Your task to perform on an android device: find snoozed emails in the gmail app Image 0: 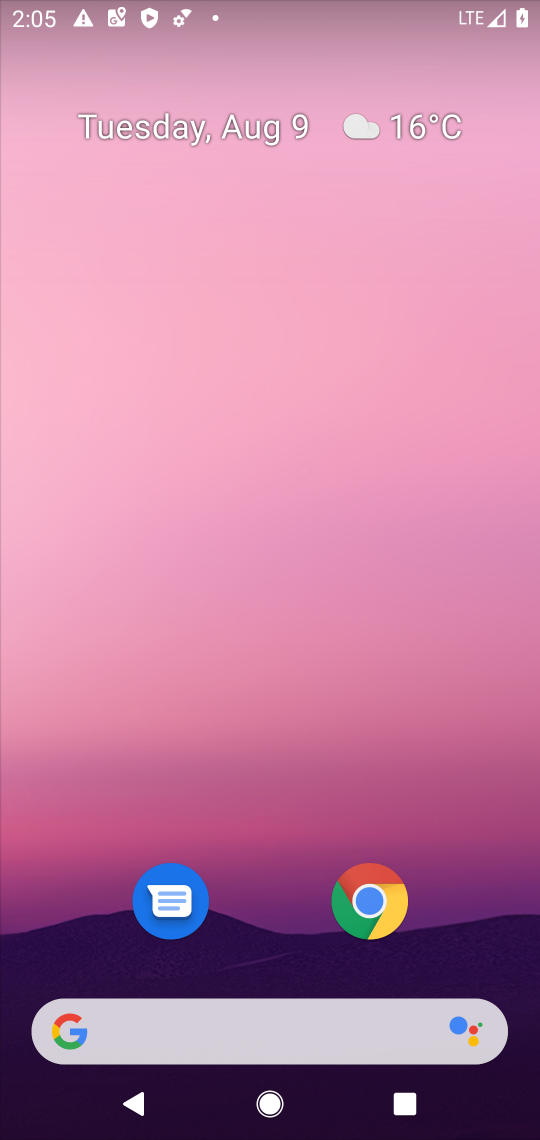
Step 0: drag from (513, 950) to (462, 112)
Your task to perform on an android device: find snoozed emails in the gmail app Image 1: 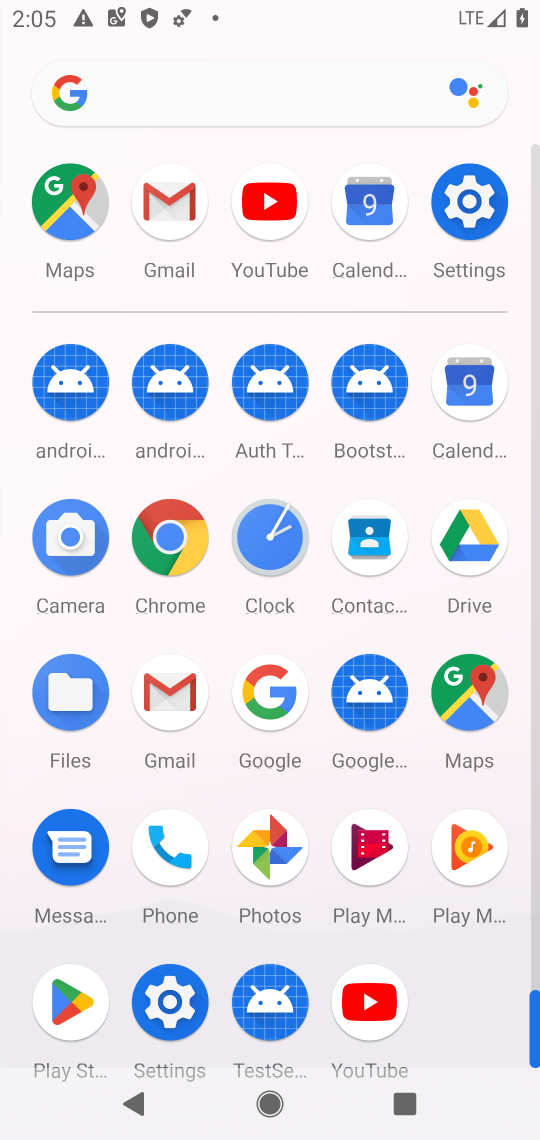
Step 1: click (169, 688)
Your task to perform on an android device: find snoozed emails in the gmail app Image 2: 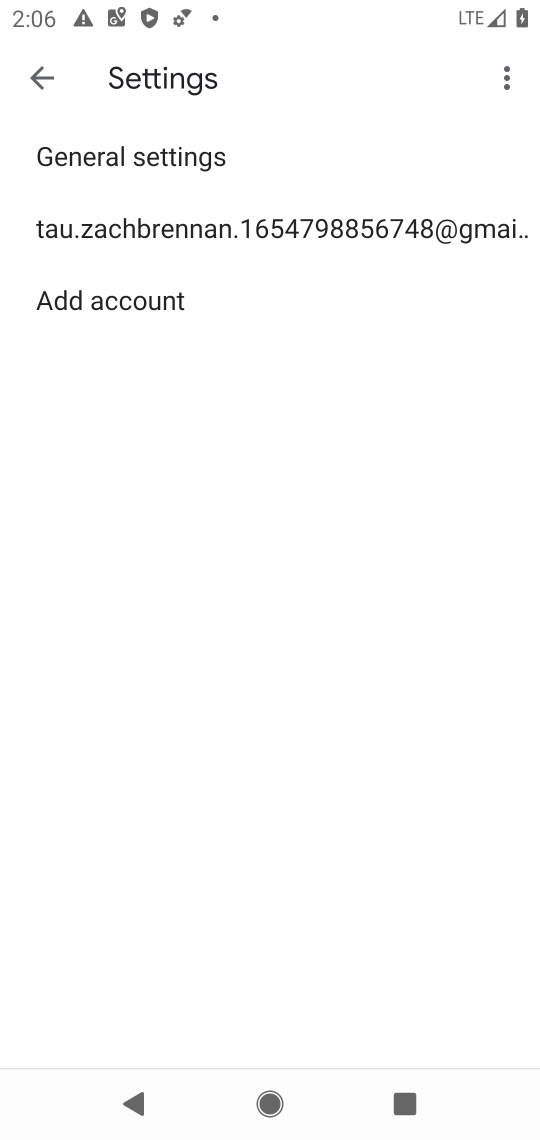
Step 2: press back button
Your task to perform on an android device: find snoozed emails in the gmail app Image 3: 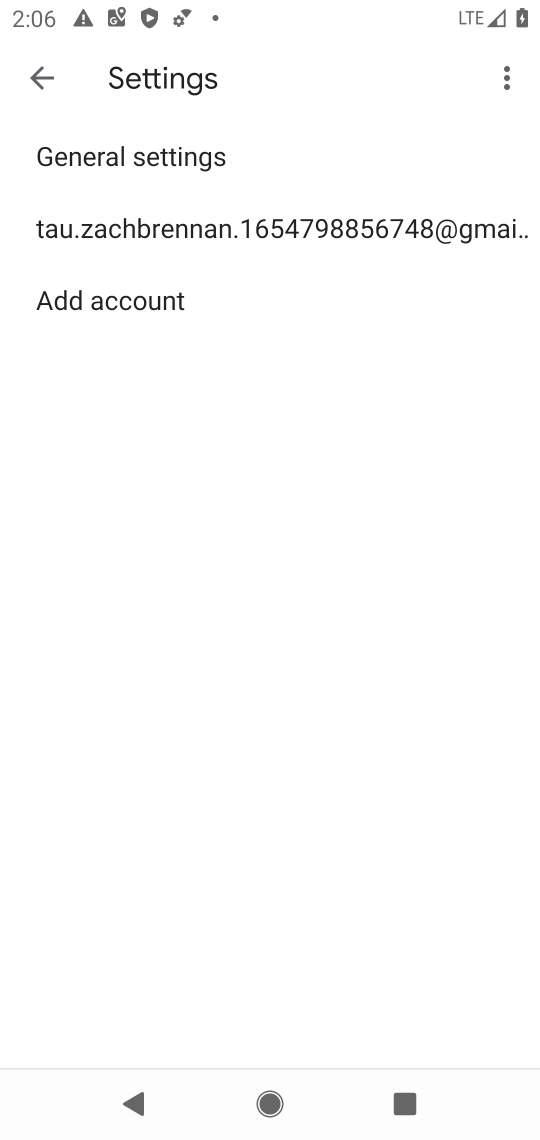
Step 3: press back button
Your task to perform on an android device: find snoozed emails in the gmail app Image 4: 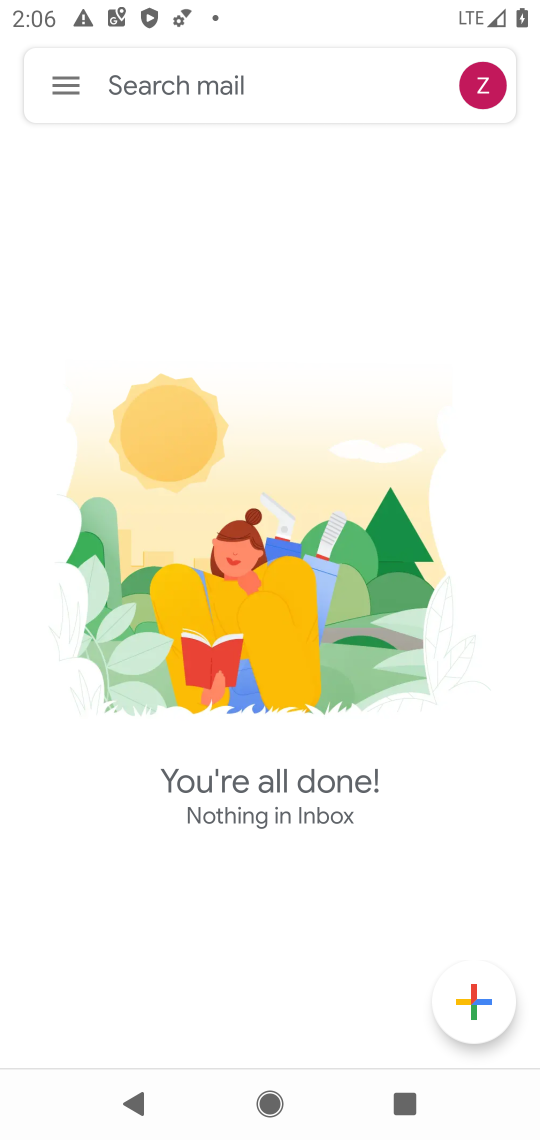
Step 4: click (63, 86)
Your task to perform on an android device: find snoozed emails in the gmail app Image 5: 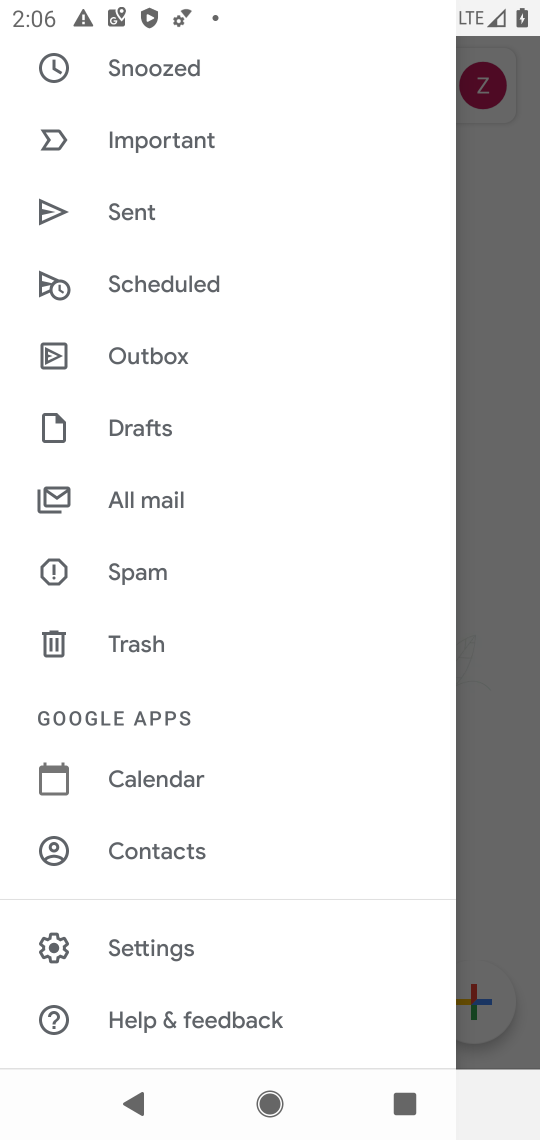
Step 5: drag from (307, 283) to (299, 623)
Your task to perform on an android device: find snoozed emails in the gmail app Image 6: 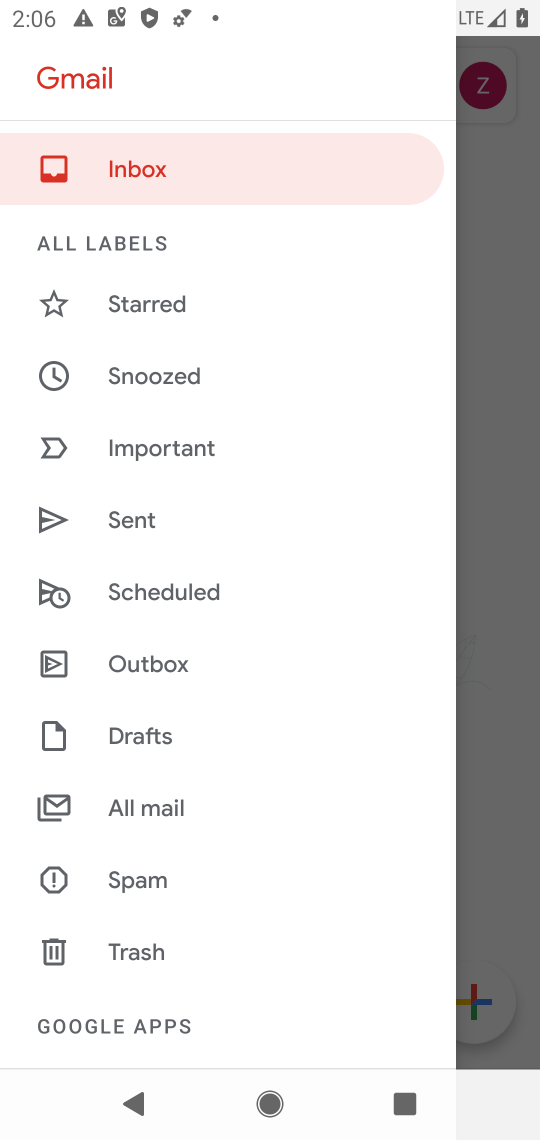
Step 6: click (137, 364)
Your task to perform on an android device: find snoozed emails in the gmail app Image 7: 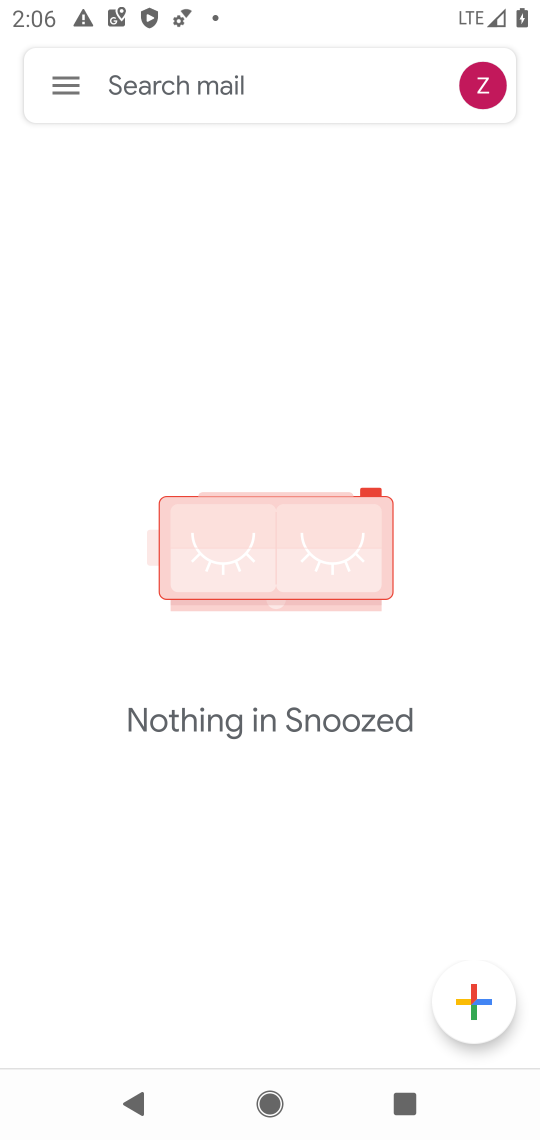
Step 7: task complete